Your task to perform on an android device: toggle wifi Image 0: 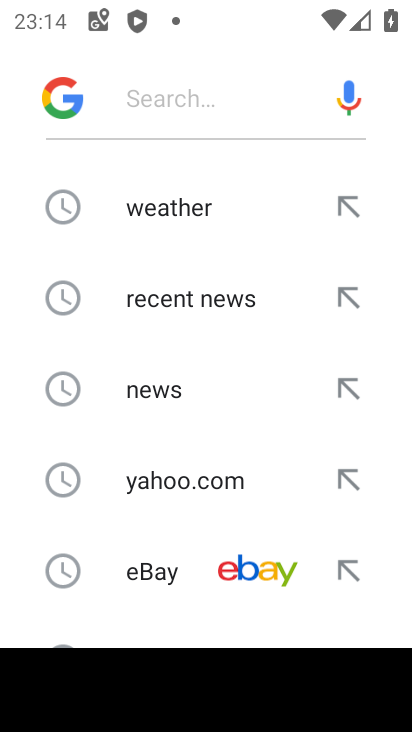
Step 0: press home button
Your task to perform on an android device: toggle wifi Image 1: 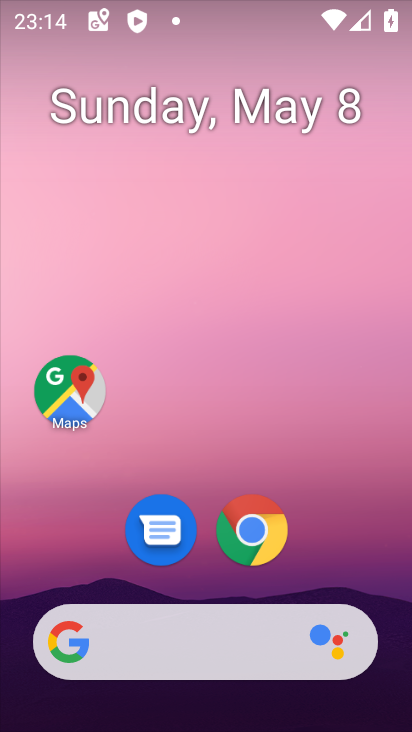
Step 1: drag from (392, 551) to (350, 126)
Your task to perform on an android device: toggle wifi Image 2: 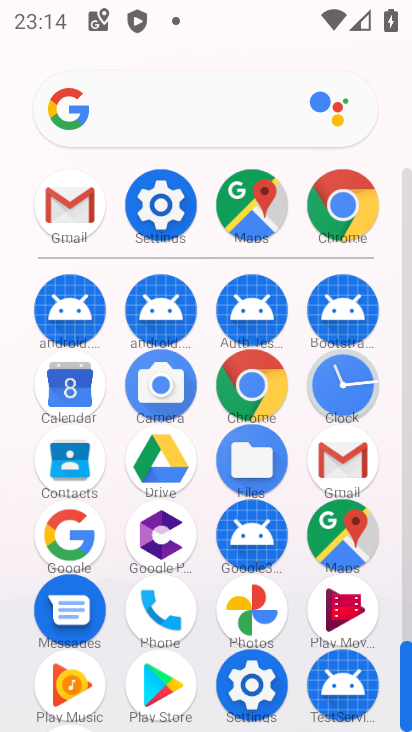
Step 2: click (267, 679)
Your task to perform on an android device: toggle wifi Image 3: 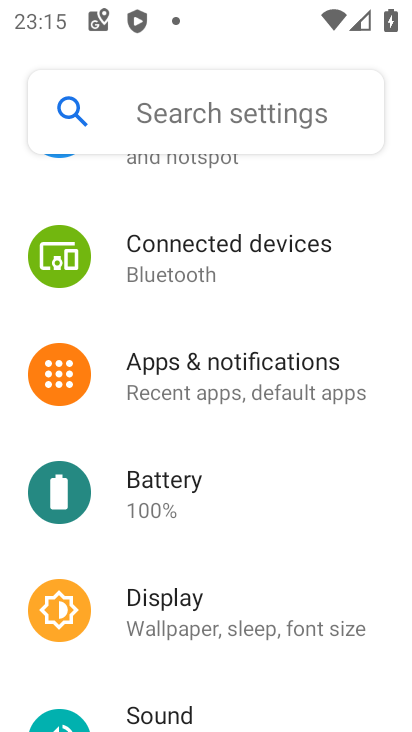
Step 3: click (166, 115)
Your task to perform on an android device: toggle wifi Image 4: 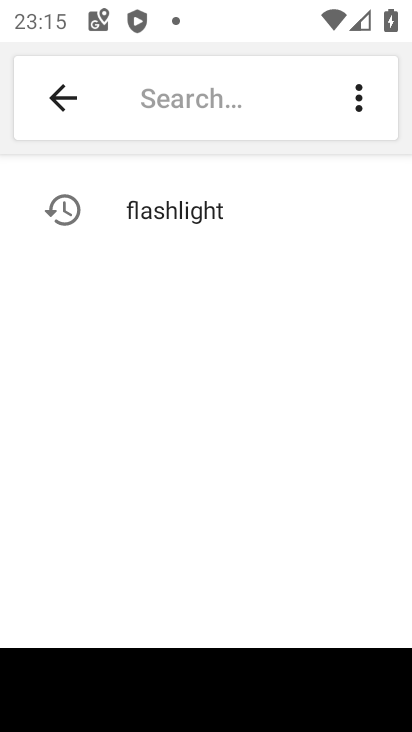
Step 4: click (60, 91)
Your task to perform on an android device: toggle wifi Image 5: 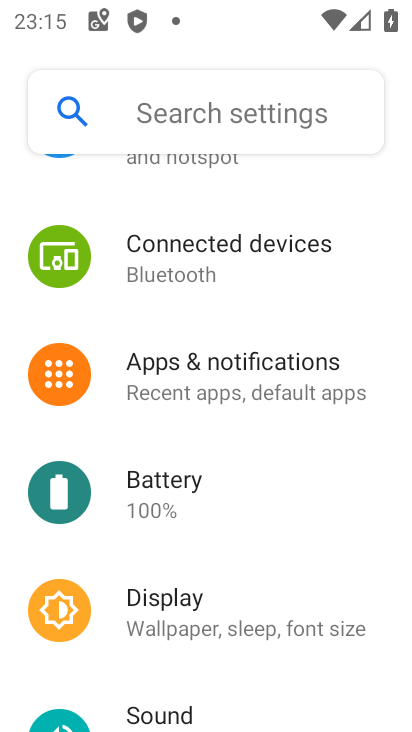
Step 5: drag from (292, 276) to (328, 666)
Your task to perform on an android device: toggle wifi Image 6: 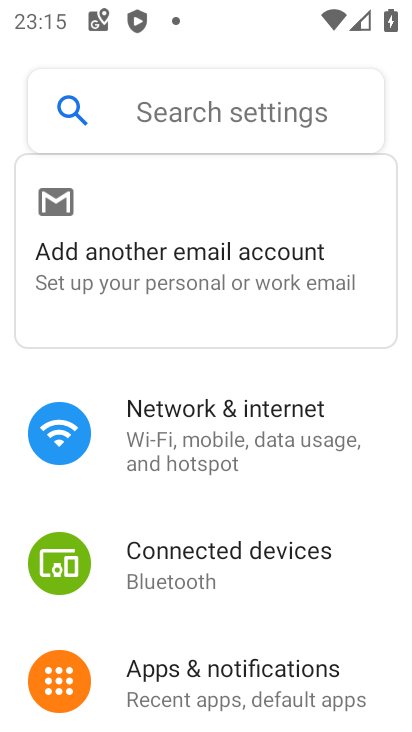
Step 6: click (267, 427)
Your task to perform on an android device: toggle wifi Image 7: 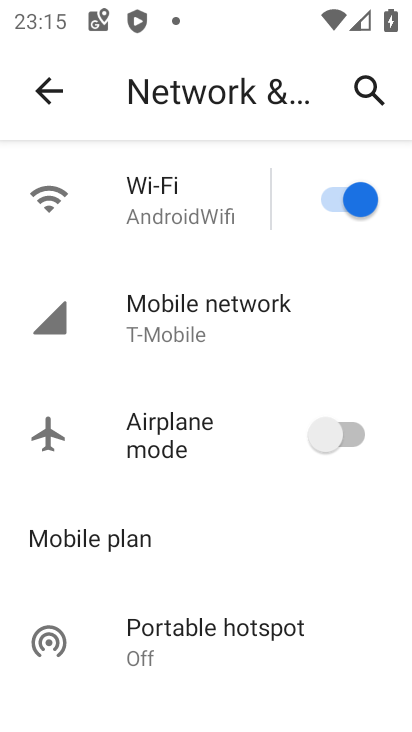
Step 7: click (337, 213)
Your task to perform on an android device: toggle wifi Image 8: 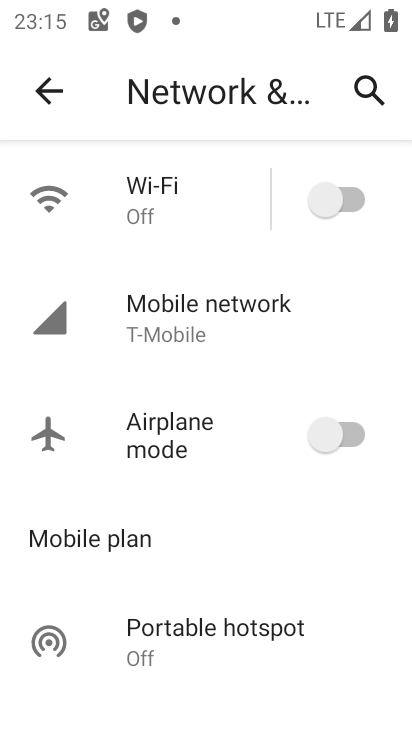
Step 8: task complete